Your task to perform on an android device: all mails in gmail Image 0: 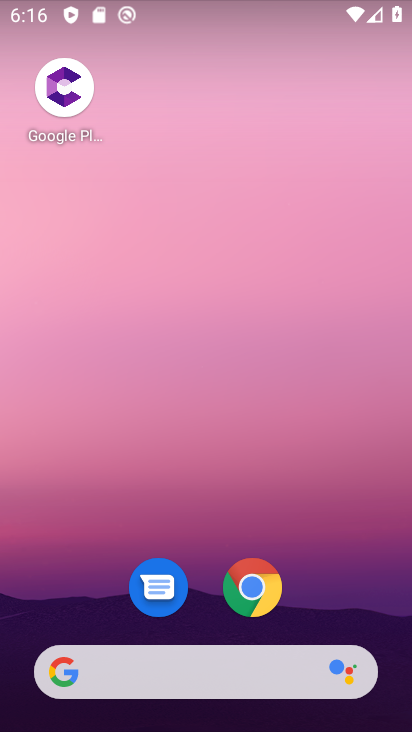
Step 0: drag from (331, 582) to (229, 23)
Your task to perform on an android device: all mails in gmail Image 1: 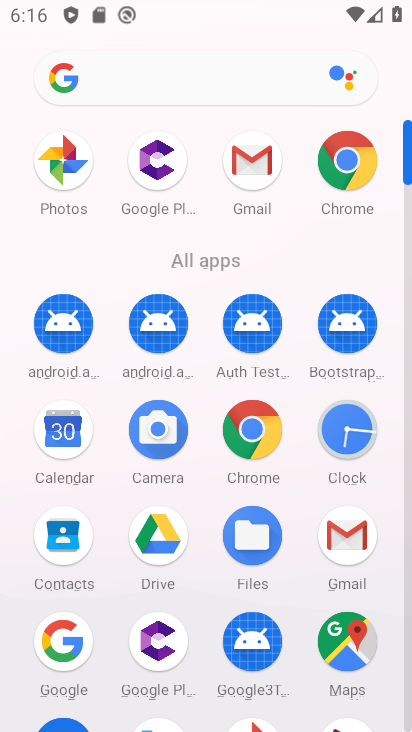
Step 1: drag from (17, 559) to (12, 162)
Your task to perform on an android device: all mails in gmail Image 2: 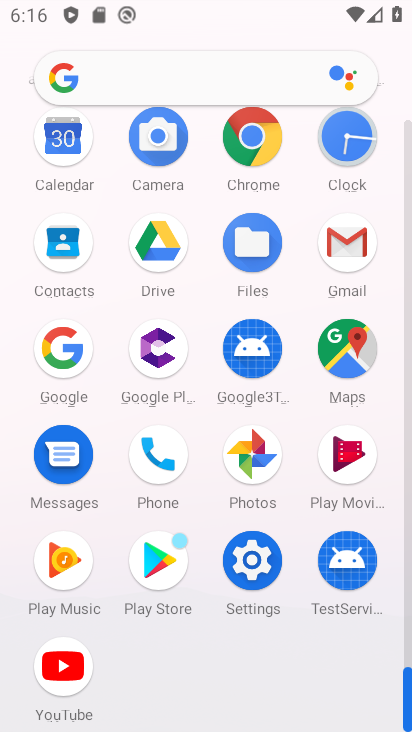
Step 2: click (351, 240)
Your task to perform on an android device: all mails in gmail Image 3: 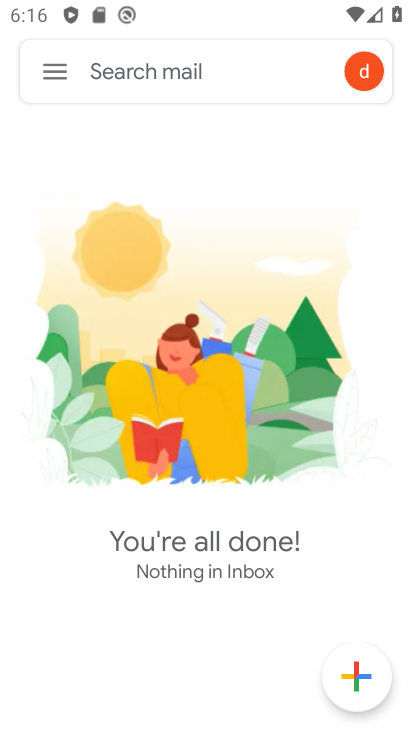
Step 3: click (49, 64)
Your task to perform on an android device: all mails in gmail Image 4: 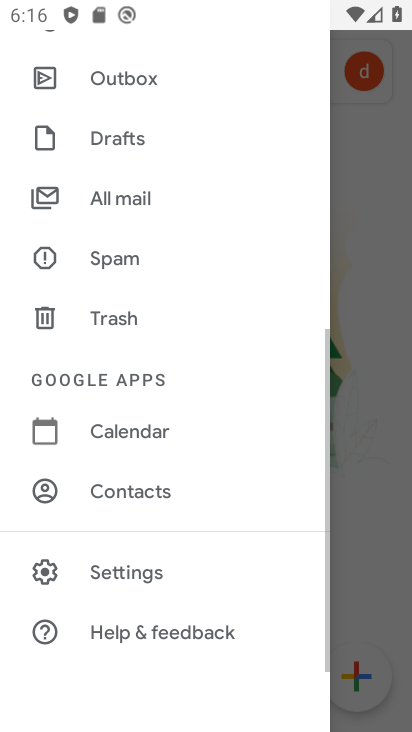
Step 4: click (126, 191)
Your task to perform on an android device: all mails in gmail Image 5: 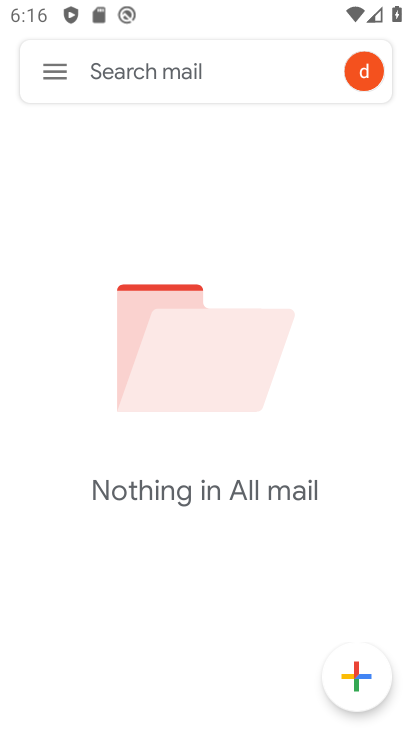
Step 5: task complete